Your task to perform on an android device: Set the phone to "Do not disturb". Image 0: 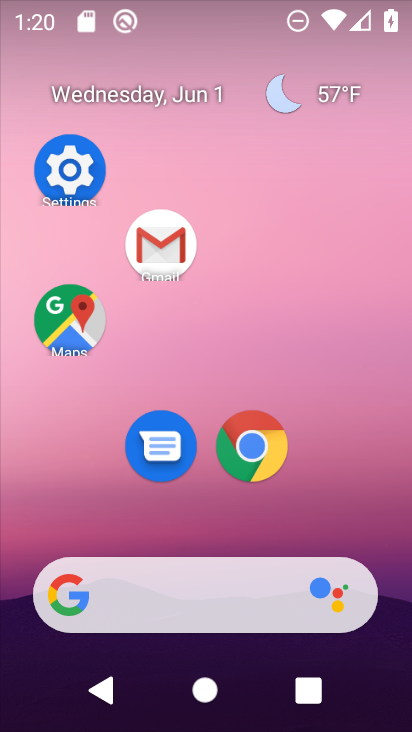
Step 0: click (77, 177)
Your task to perform on an android device: Set the phone to "Do not disturb". Image 1: 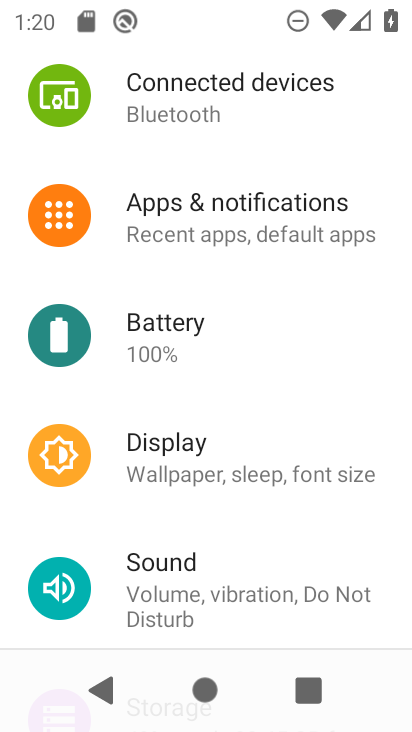
Step 1: click (236, 570)
Your task to perform on an android device: Set the phone to "Do not disturb". Image 2: 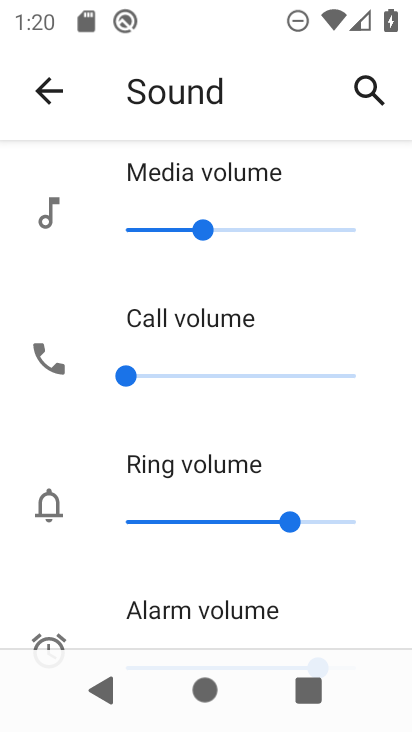
Step 2: drag from (264, 570) to (315, 90)
Your task to perform on an android device: Set the phone to "Do not disturb". Image 3: 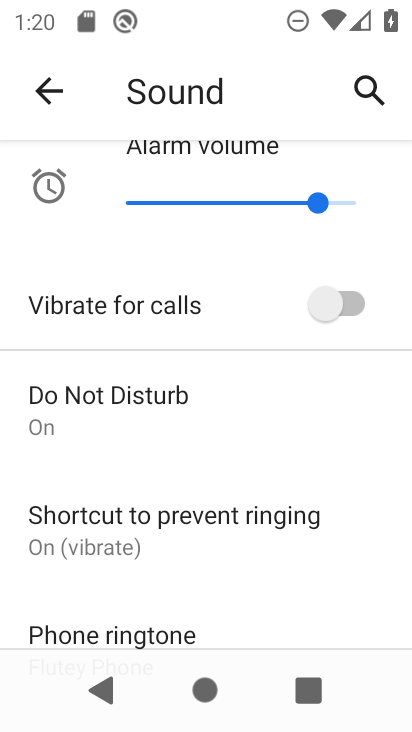
Step 3: click (228, 403)
Your task to perform on an android device: Set the phone to "Do not disturb". Image 4: 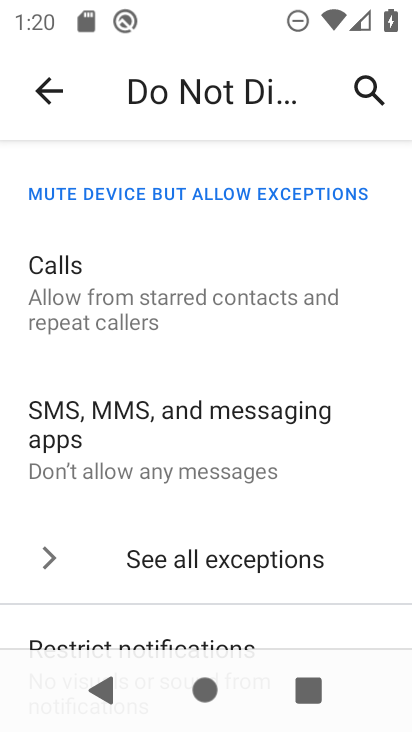
Step 4: task complete